Your task to perform on an android device: View the shopping cart on bestbuy. Image 0: 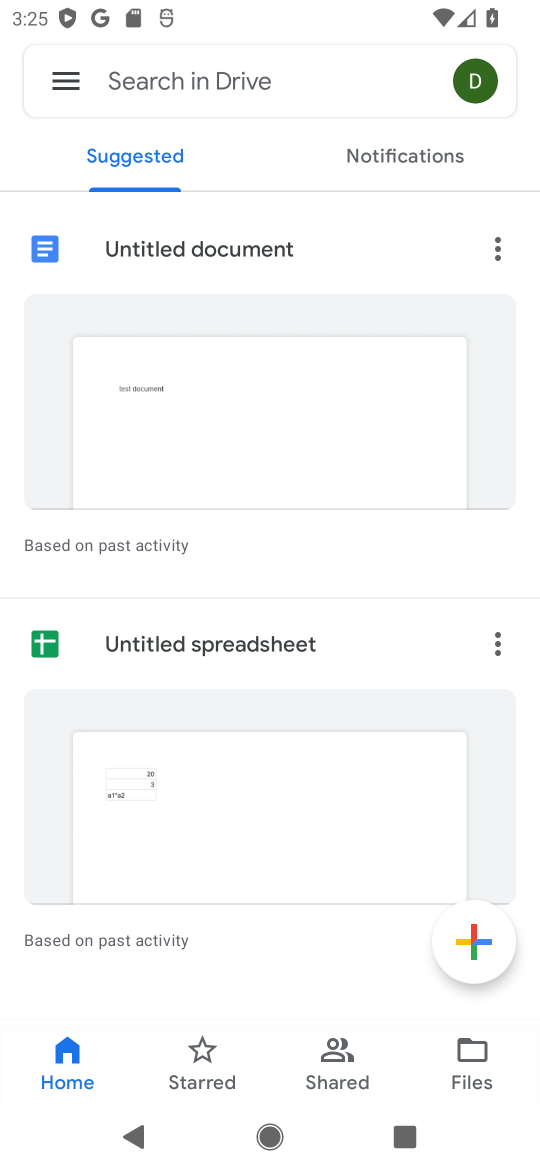
Step 0: press home button
Your task to perform on an android device: View the shopping cart on bestbuy. Image 1: 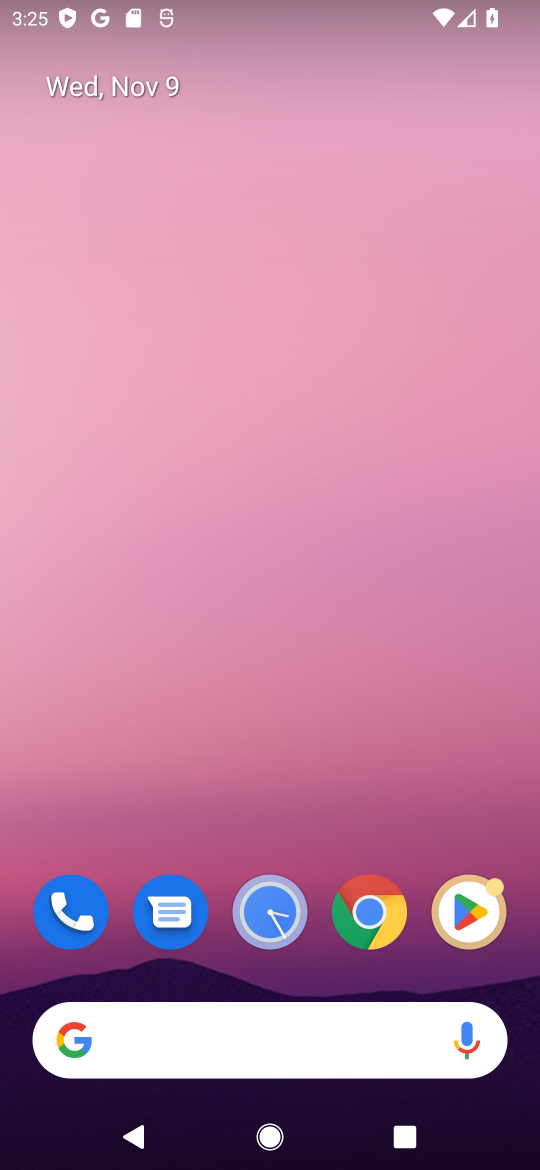
Step 1: click (367, 913)
Your task to perform on an android device: View the shopping cart on bestbuy. Image 2: 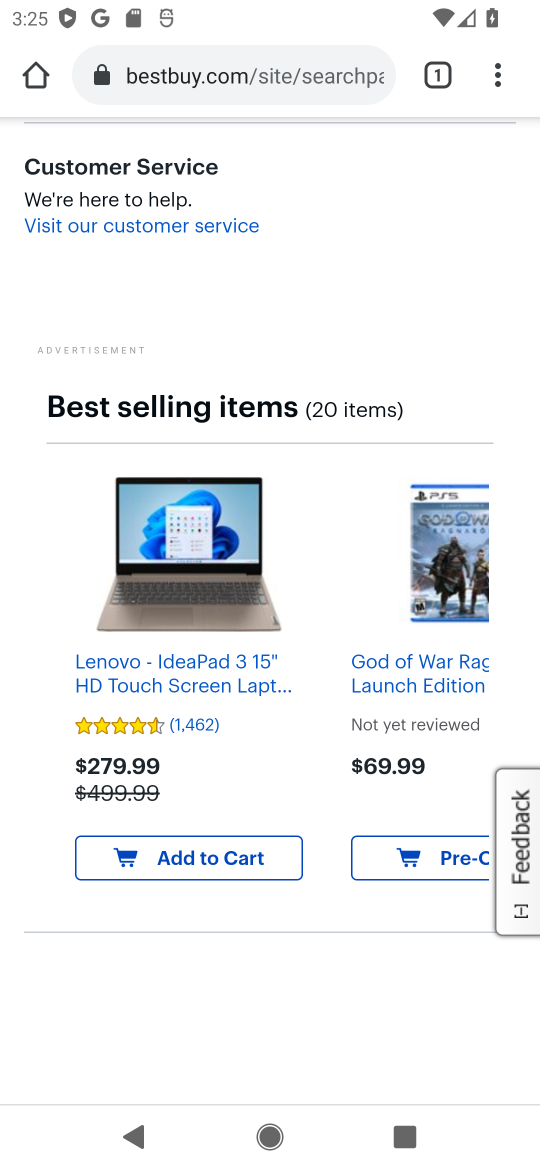
Step 2: click (248, 73)
Your task to perform on an android device: View the shopping cart on bestbuy. Image 3: 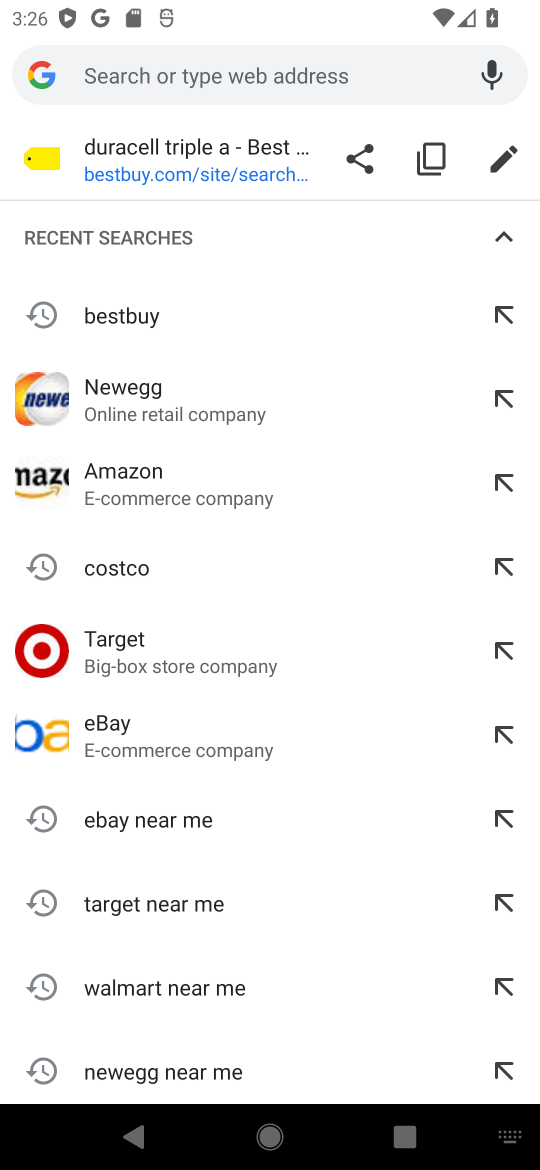
Step 3: type "bestbuy"
Your task to perform on an android device: View the shopping cart on bestbuy. Image 4: 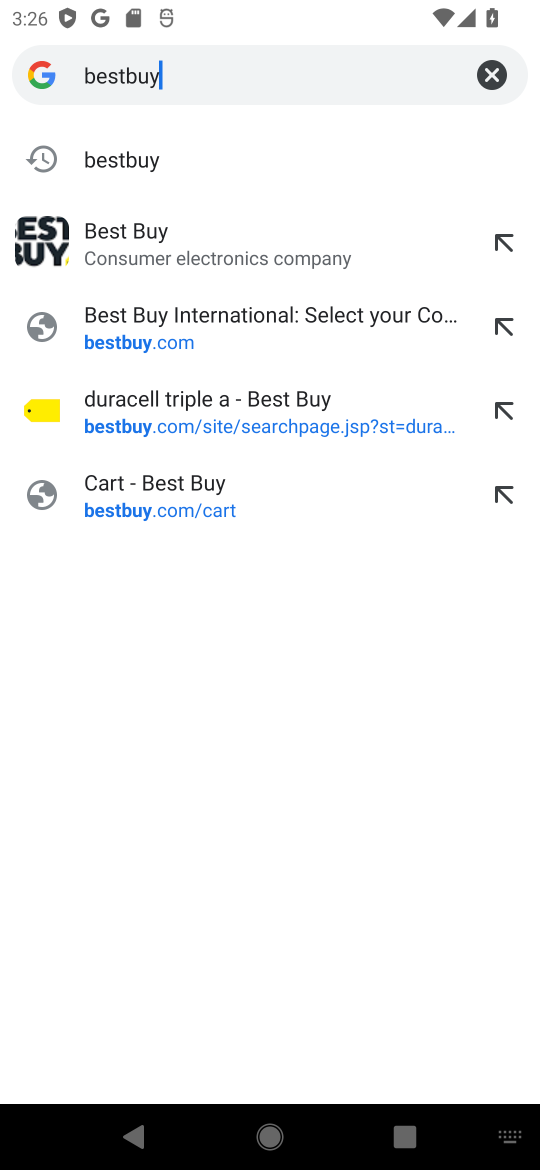
Step 4: click (145, 176)
Your task to perform on an android device: View the shopping cart on bestbuy. Image 5: 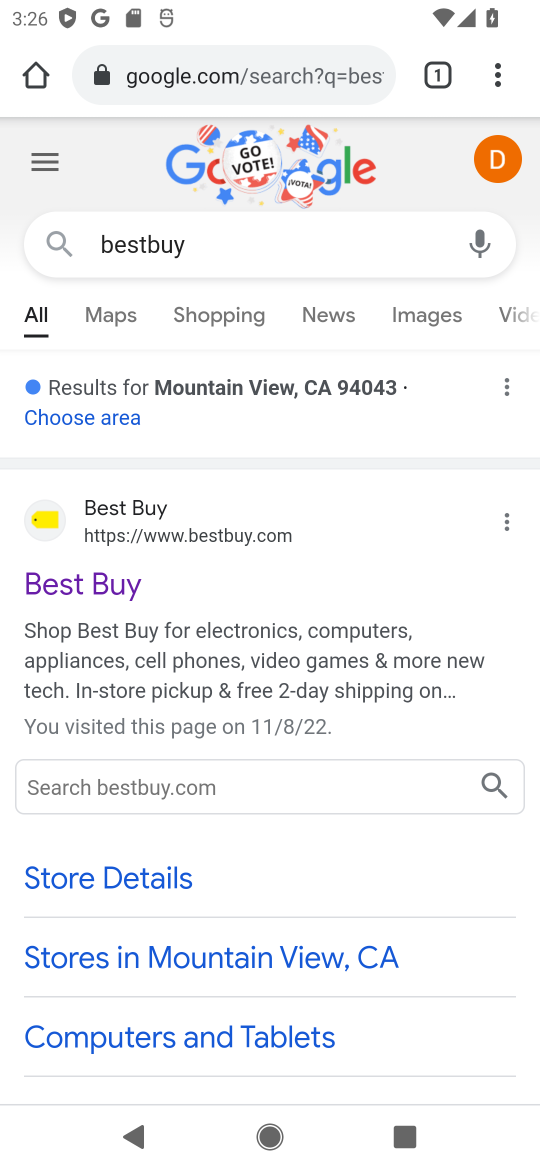
Step 5: click (218, 539)
Your task to perform on an android device: View the shopping cart on bestbuy. Image 6: 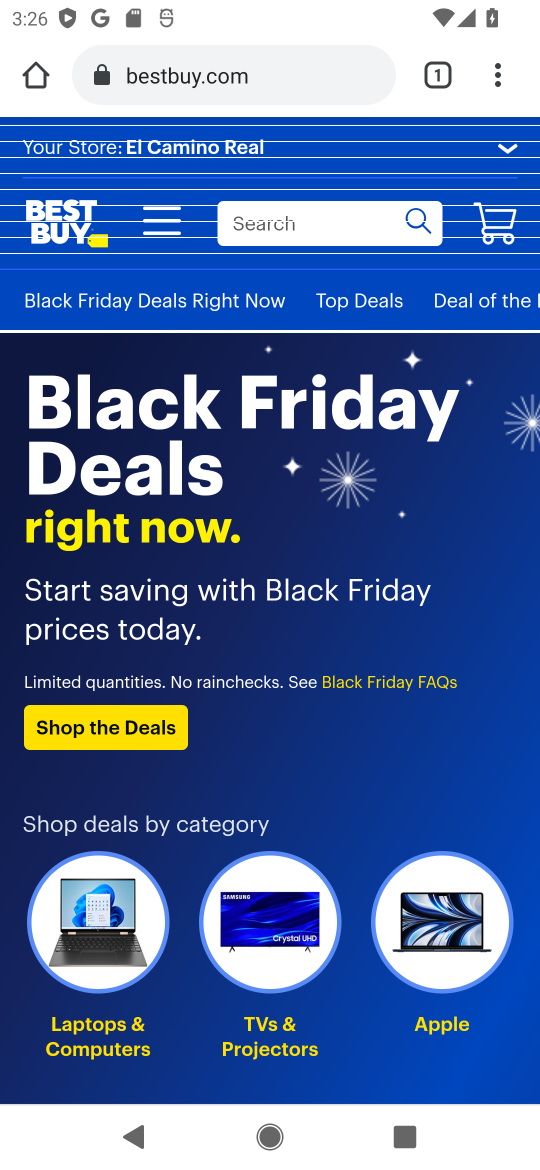
Step 6: click (498, 223)
Your task to perform on an android device: View the shopping cart on bestbuy. Image 7: 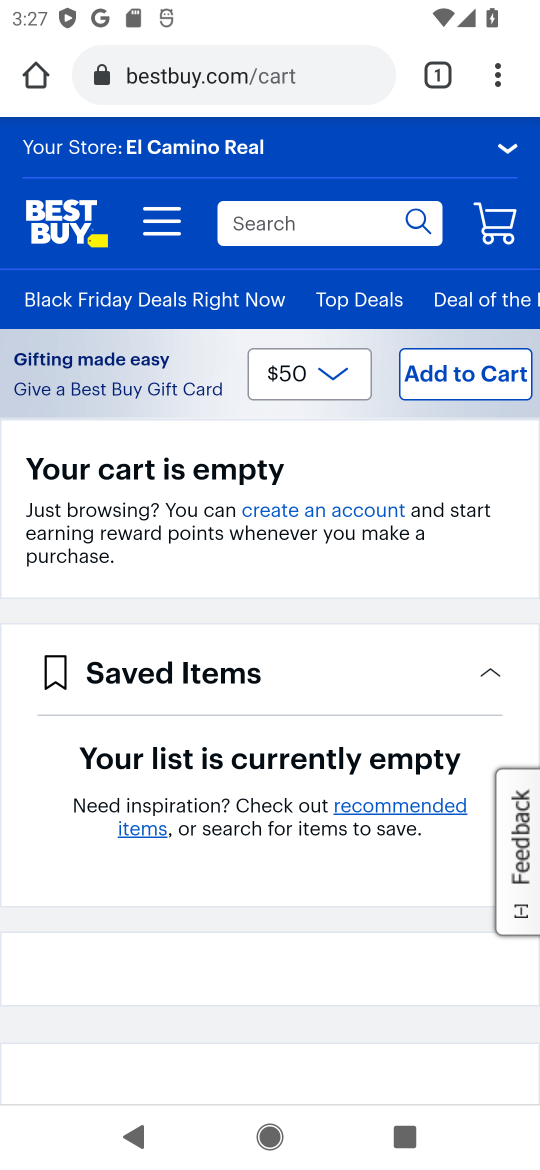
Step 7: task complete